Your task to perform on an android device: Go to Google maps Image 0: 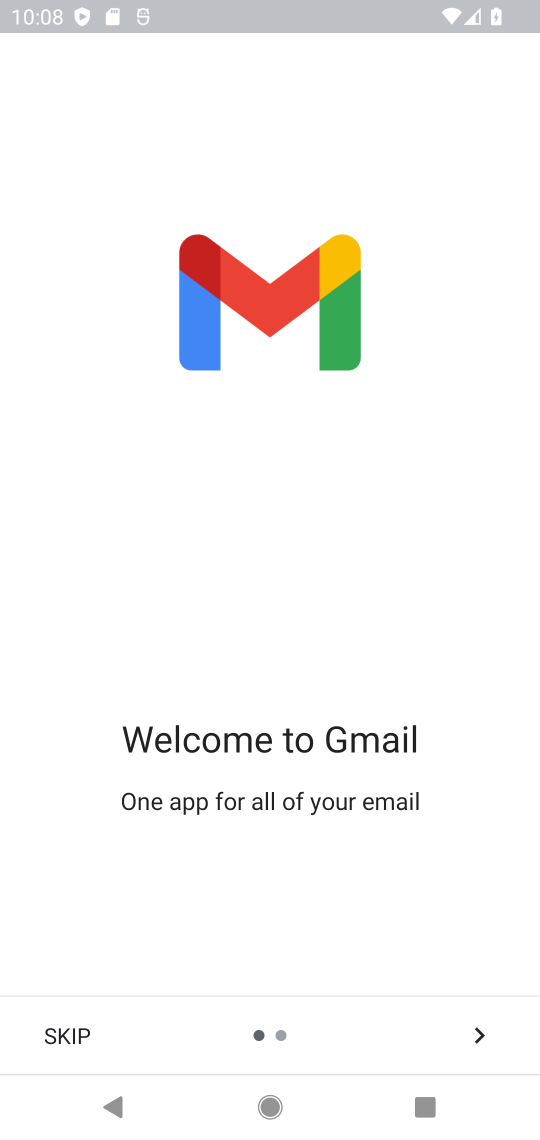
Step 0: click (86, 1040)
Your task to perform on an android device: Go to Google maps Image 1: 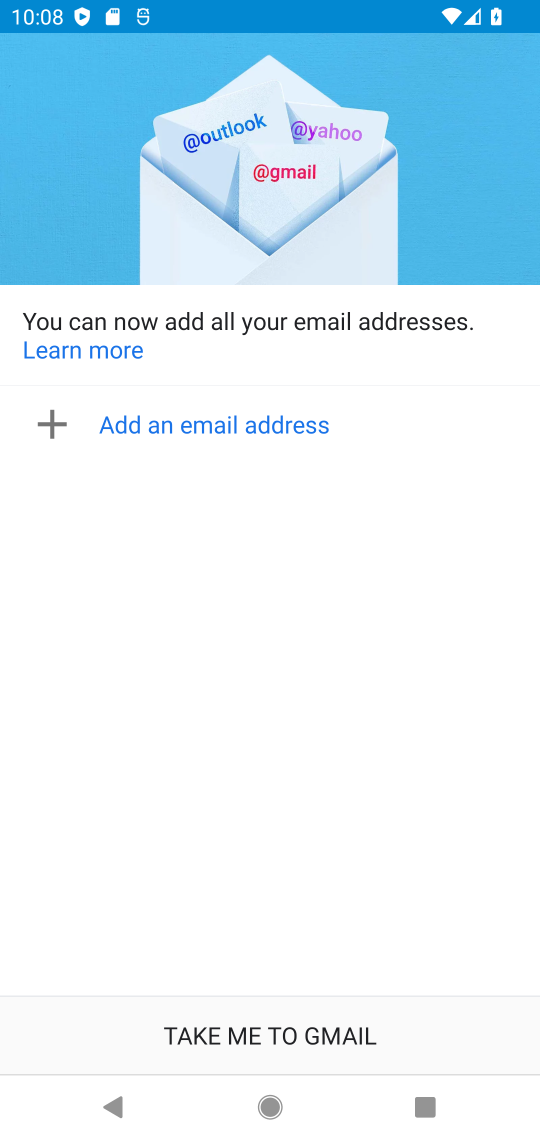
Step 1: press home button
Your task to perform on an android device: Go to Google maps Image 2: 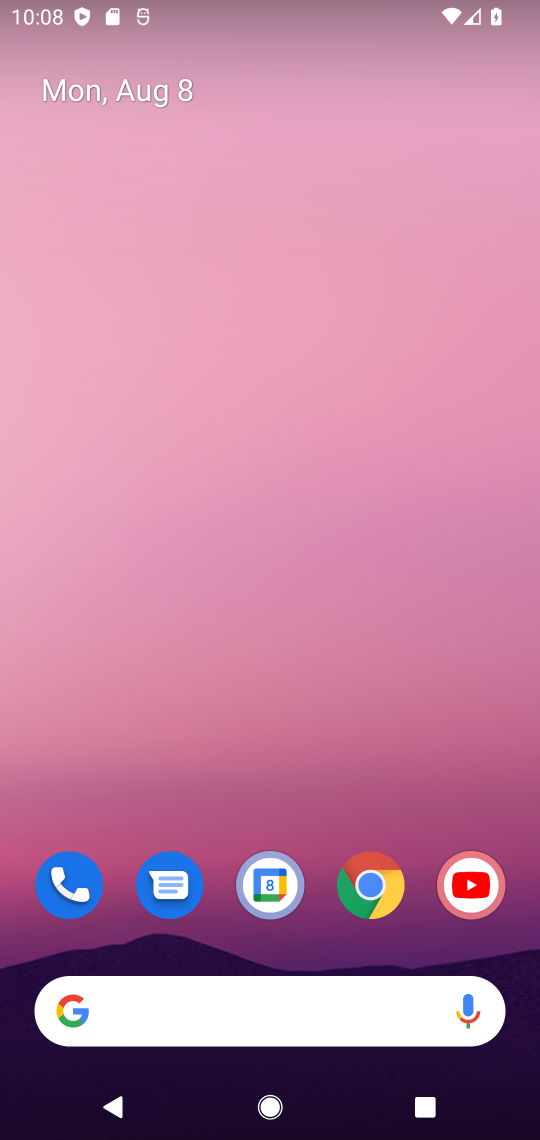
Step 2: drag from (160, 1100) to (185, 138)
Your task to perform on an android device: Go to Google maps Image 3: 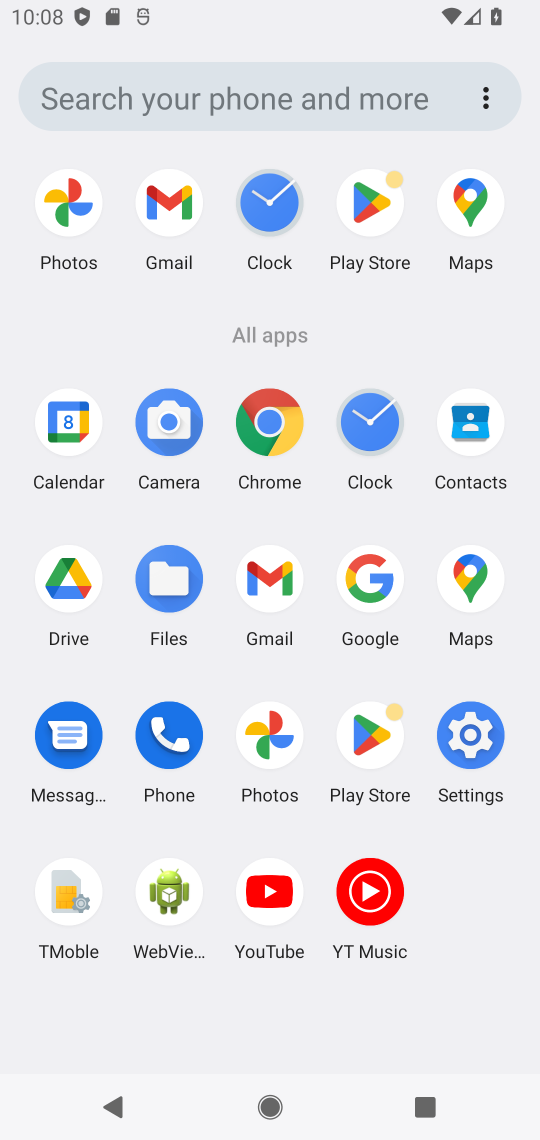
Step 3: click (468, 574)
Your task to perform on an android device: Go to Google maps Image 4: 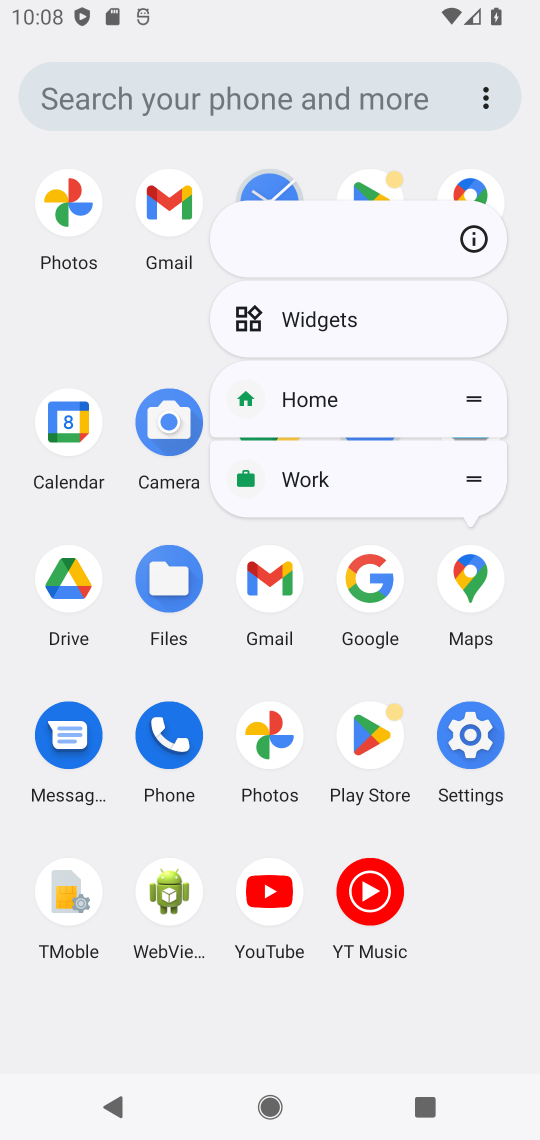
Step 4: click (468, 574)
Your task to perform on an android device: Go to Google maps Image 5: 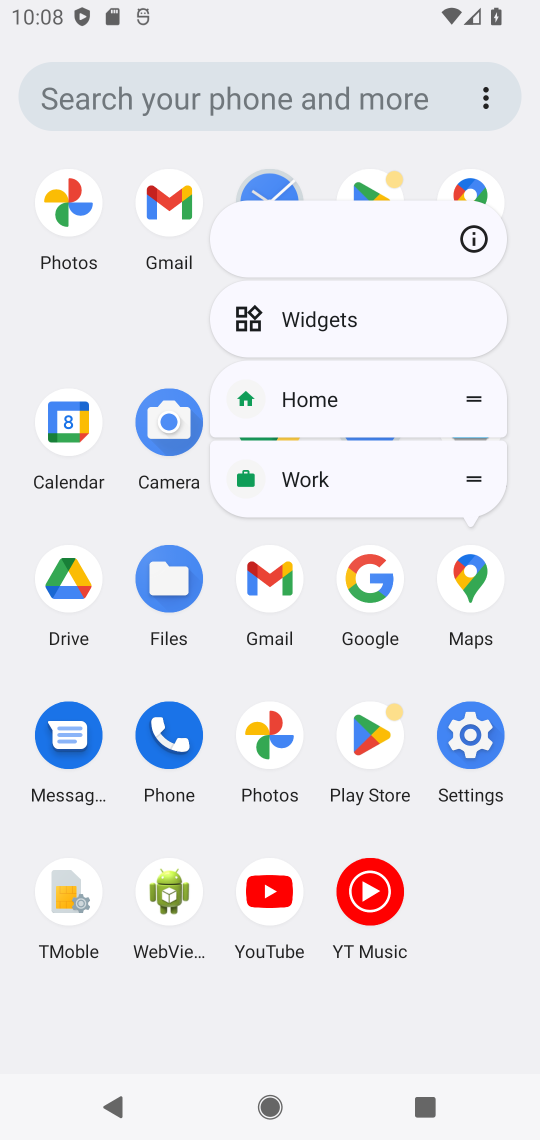
Step 5: click (468, 574)
Your task to perform on an android device: Go to Google maps Image 6: 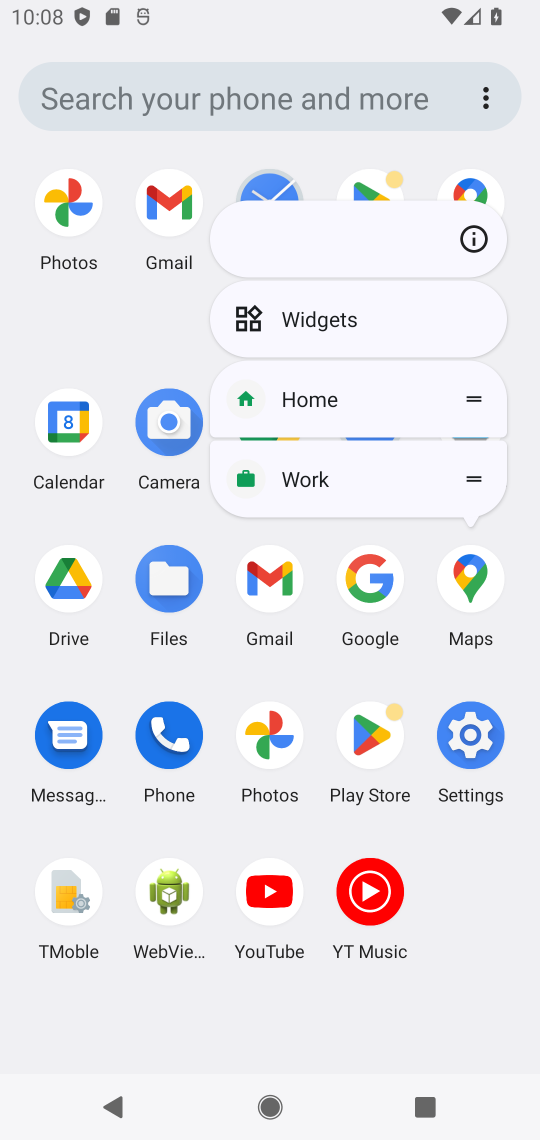
Step 6: click (468, 574)
Your task to perform on an android device: Go to Google maps Image 7: 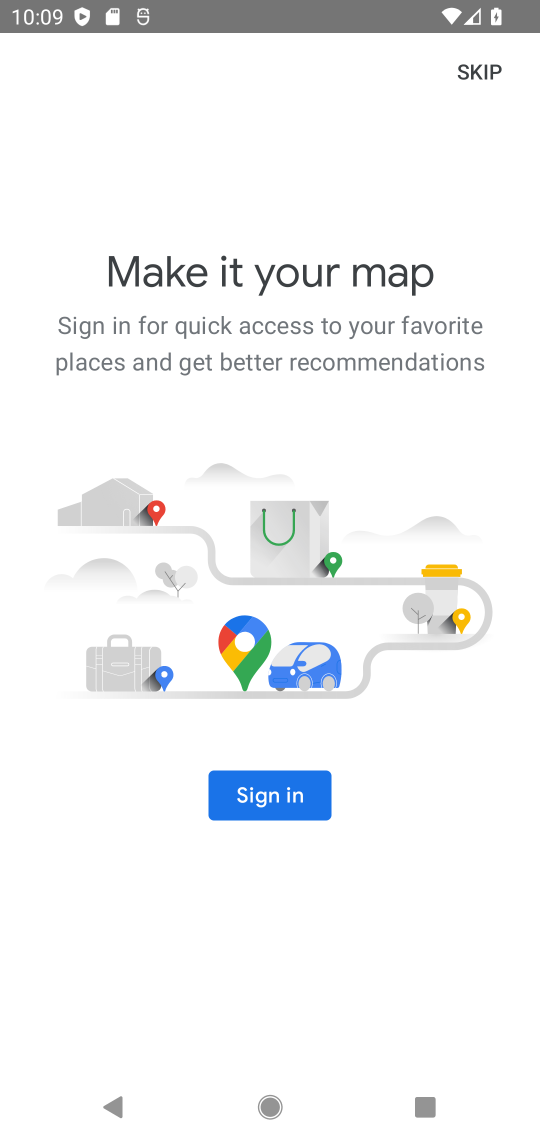
Step 7: click (496, 70)
Your task to perform on an android device: Go to Google maps Image 8: 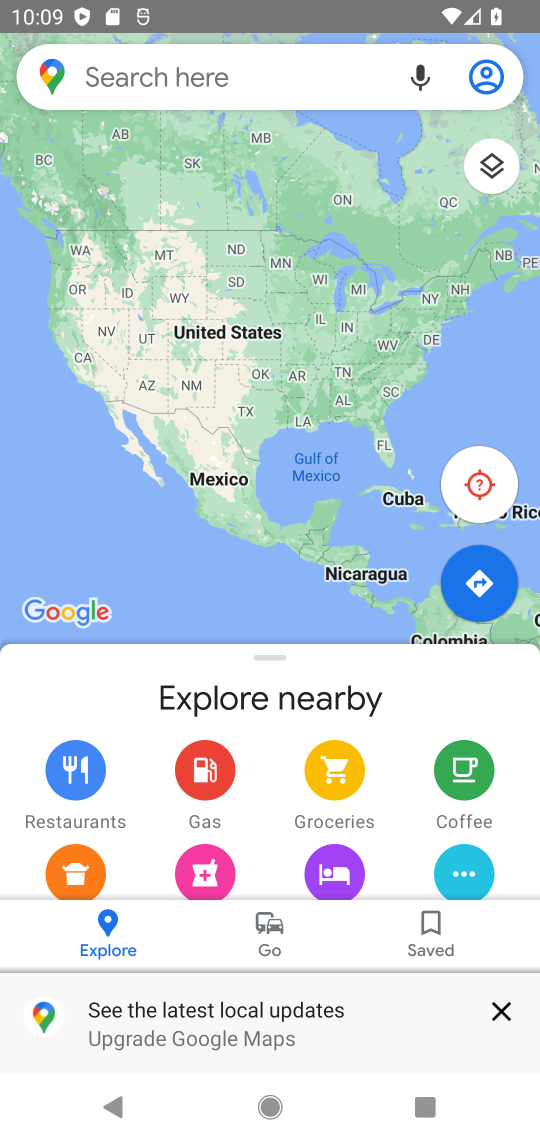
Step 8: task complete